Your task to perform on an android device: Open calendar and show me the fourth week of next month Image 0: 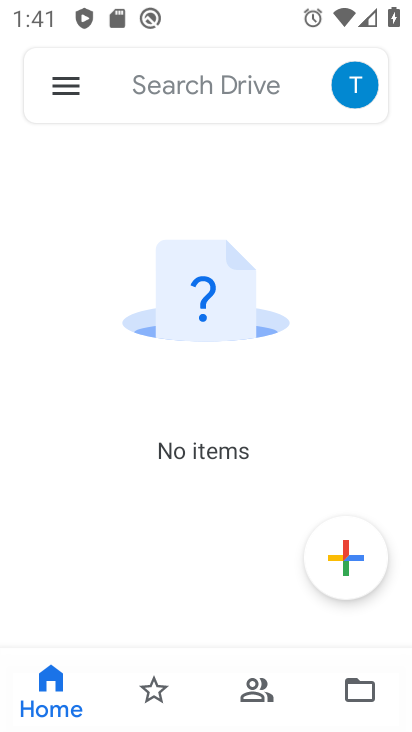
Step 0: press home button
Your task to perform on an android device: Open calendar and show me the fourth week of next month Image 1: 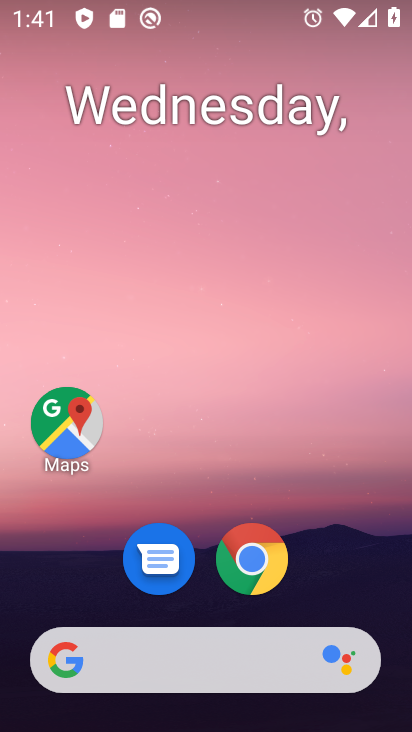
Step 1: drag from (388, 593) to (358, 90)
Your task to perform on an android device: Open calendar and show me the fourth week of next month Image 2: 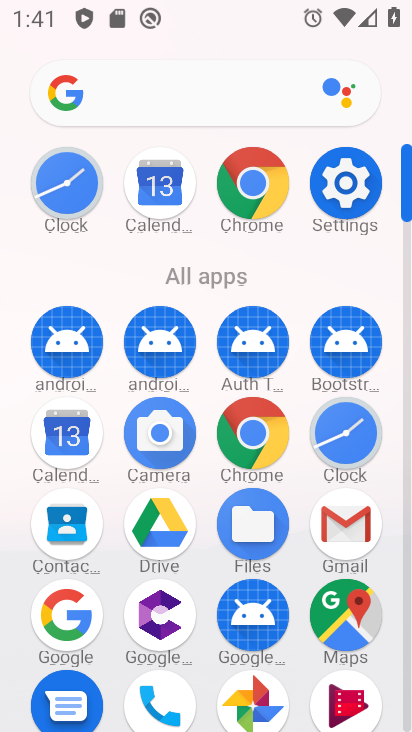
Step 2: click (163, 182)
Your task to perform on an android device: Open calendar and show me the fourth week of next month Image 3: 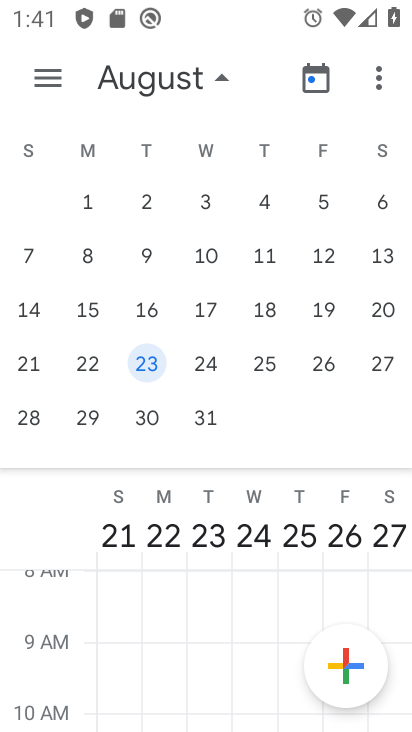
Step 3: click (211, 370)
Your task to perform on an android device: Open calendar and show me the fourth week of next month Image 4: 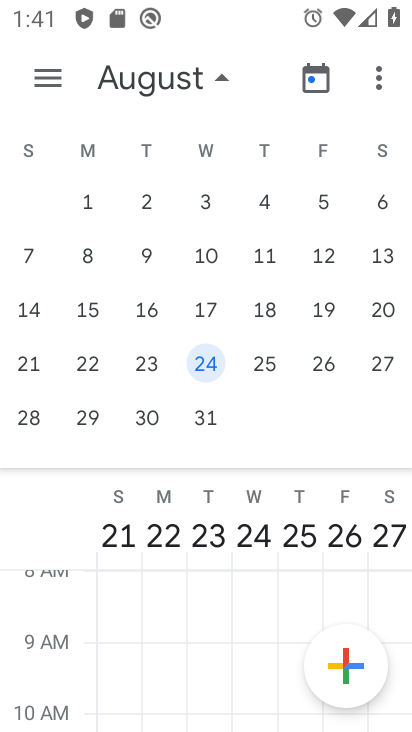
Step 4: task complete